Your task to perform on an android device: Empty the shopping cart on ebay. Image 0: 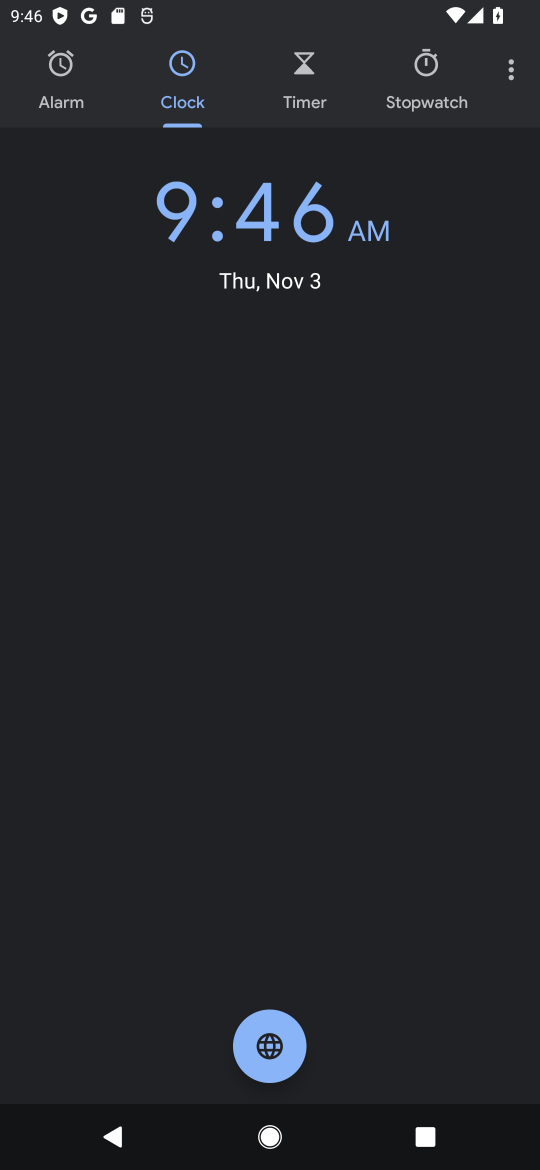
Step 0: press home button
Your task to perform on an android device: Empty the shopping cart on ebay. Image 1: 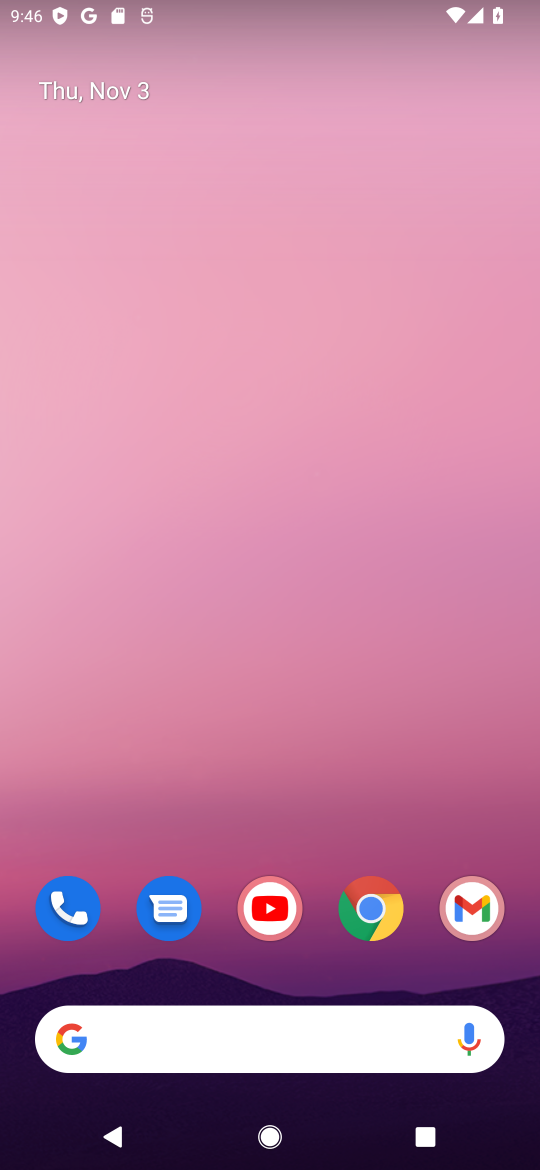
Step 1: click (382, 899)
Your task to perform on an android device: Empty the shopping cart on ebay. Image 2: 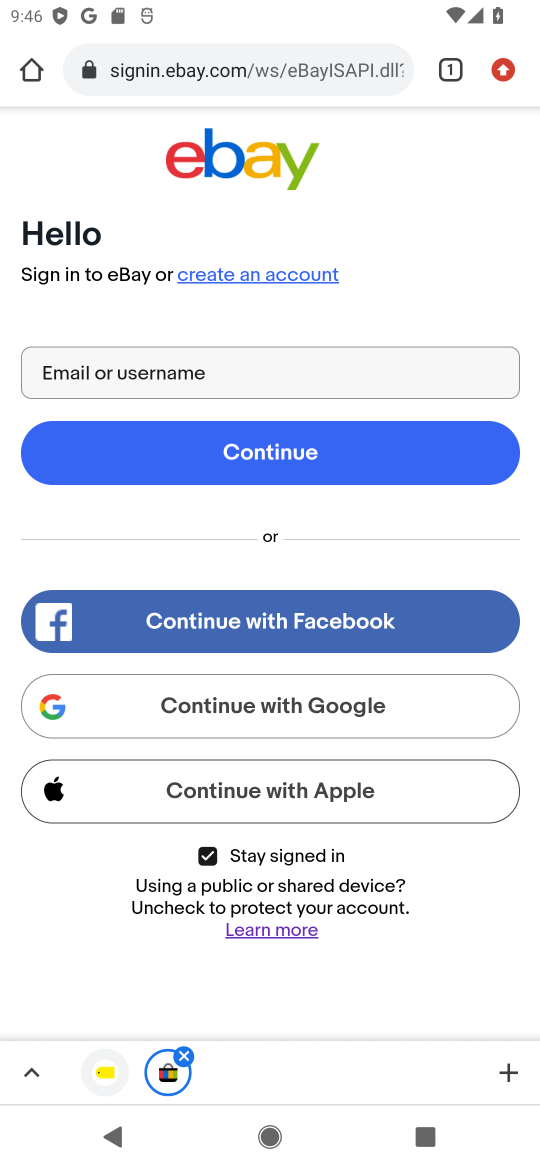
Step 2: press back button
Your task to perform on an android device: Empty the shopping cart on ebay. Image 3: 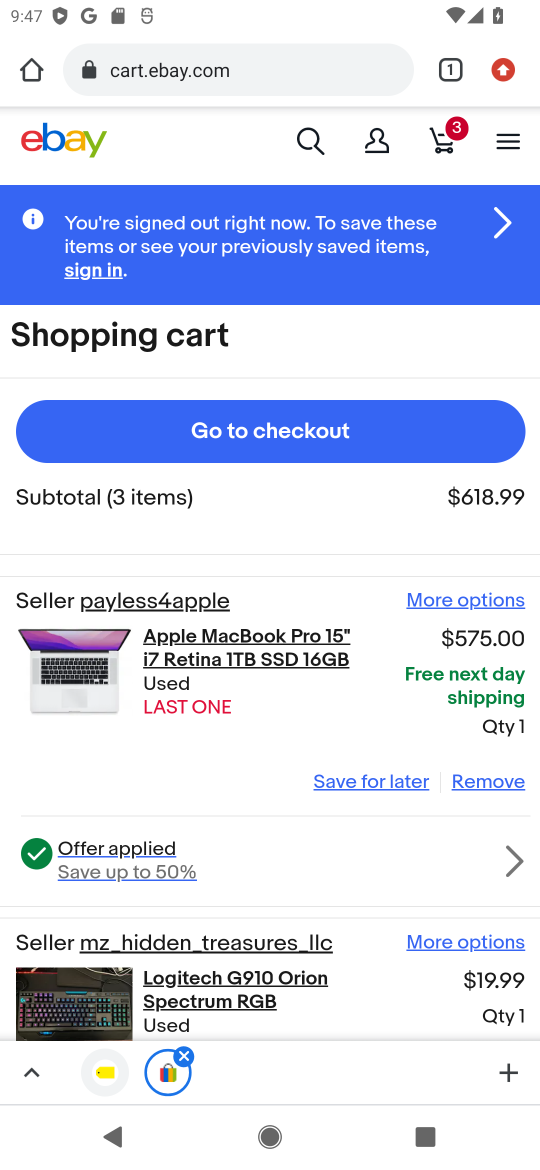
Step 3: click (447, 137)
Your task to perform on an android device: Empty the shopping cart on ebay. Image 4: 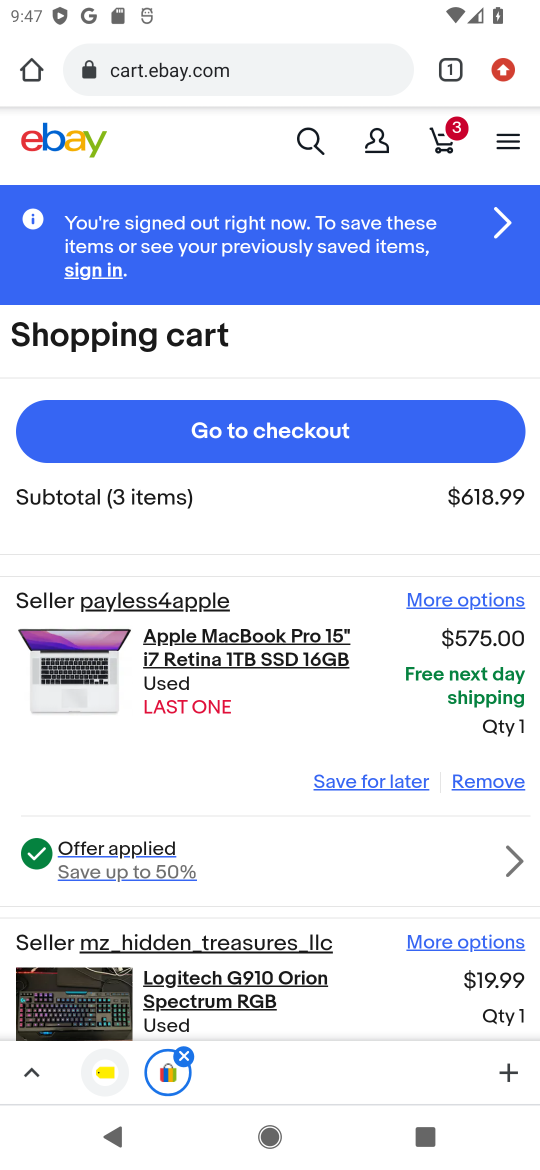
Step 4: click (492, 783)
Your task to perform on an android device: Empty the shopping cart on ebay. Image 5: 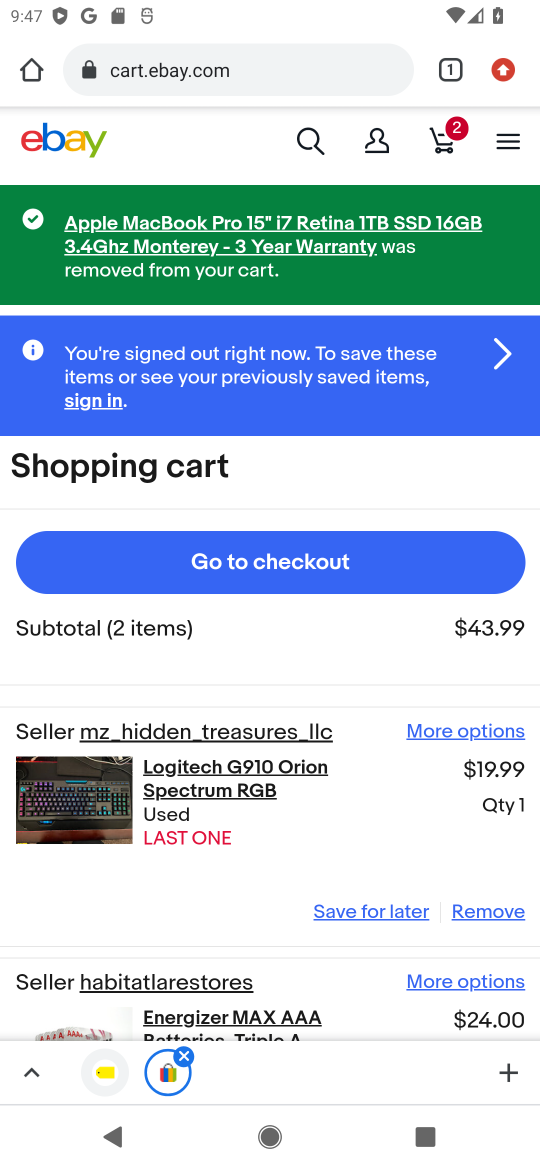
Step 5: click (496, 903)
Your task to perform on an android device: Empty the shopping cart on ebay. Image 6: 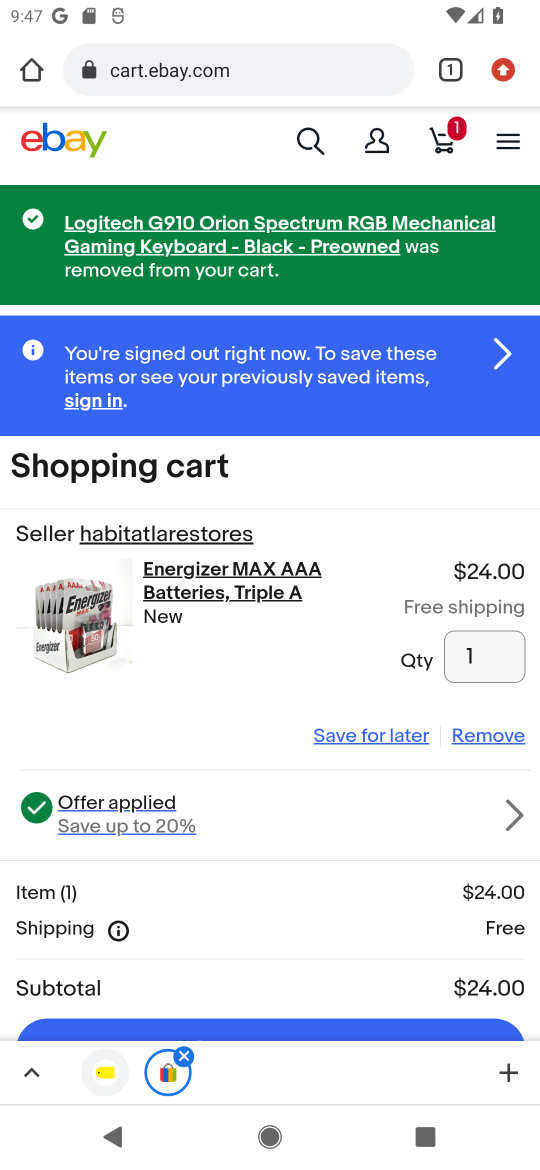
Step 6: click (489, 739)
Your task to perform on an android device: Empty the shopping cart on ebay. Image 7: 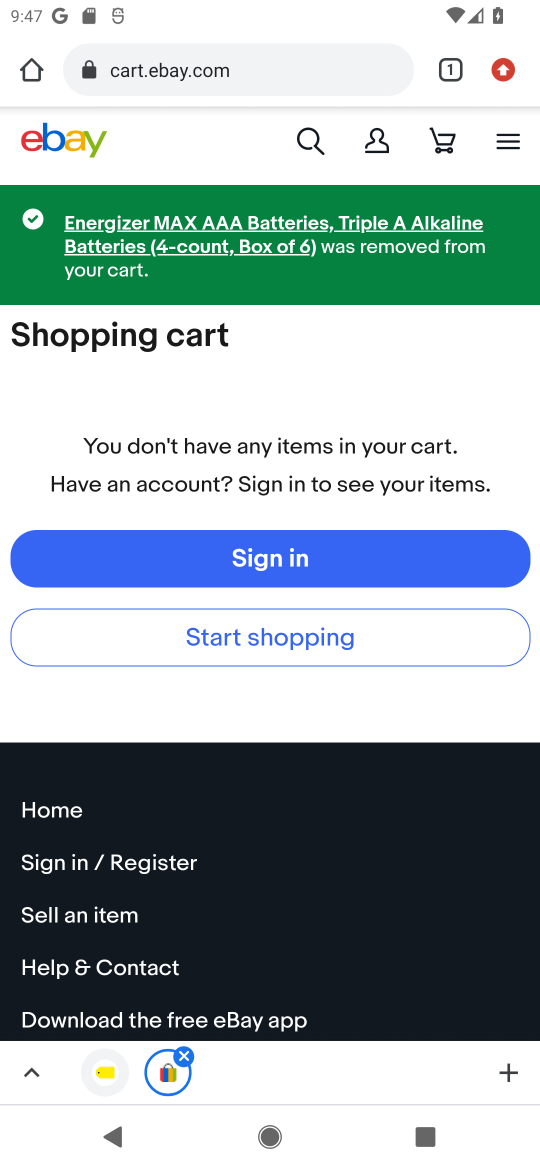
Step 7: task complete